Your task to perform on an android device: What's on my calendar today? Image 0: 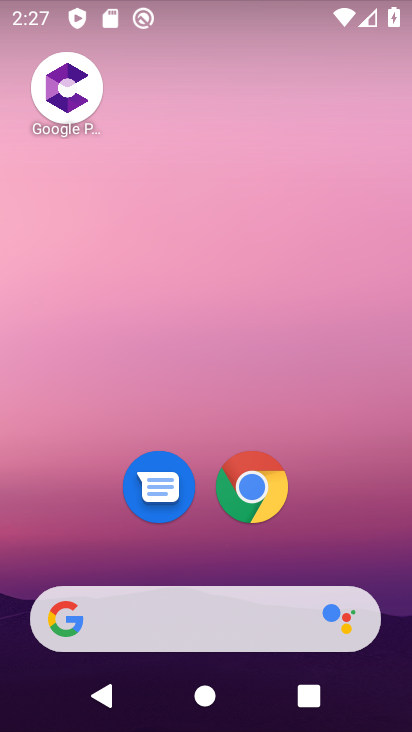
Step 0: drag from (240, 594) to (213, 159)
Your task to perform on an android device: What's on my calendar today? Image 1: 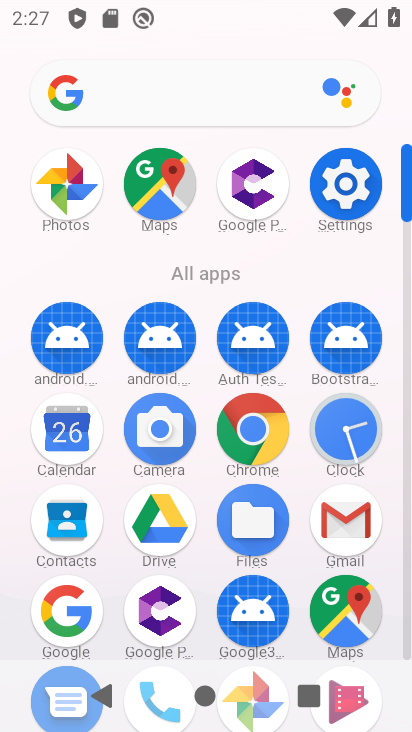
Step 1: drag from (269, 473) to (279, 157)
Your task to perform on an android device: What's on my calendar today? Image 2: 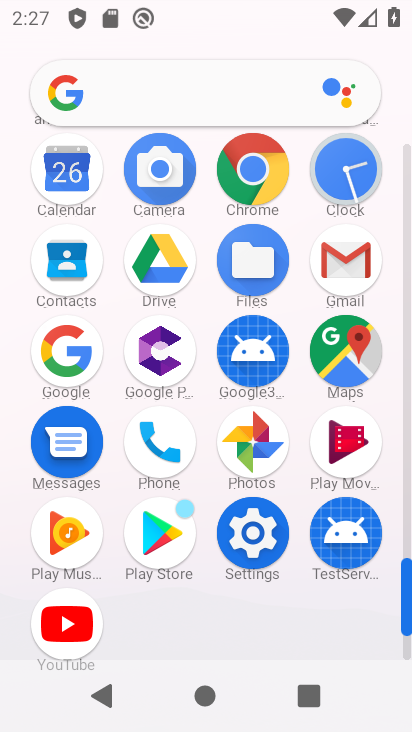
Step 2: click (250, 225)
Your task to perform on an android device: What's on my calendar today? Image 3: 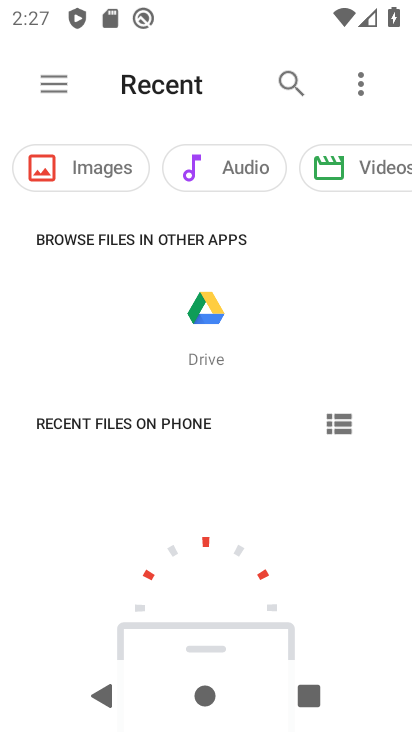
Step 3: press home button
Your task to perform on an android device: What's on my calendar today? Image 4: 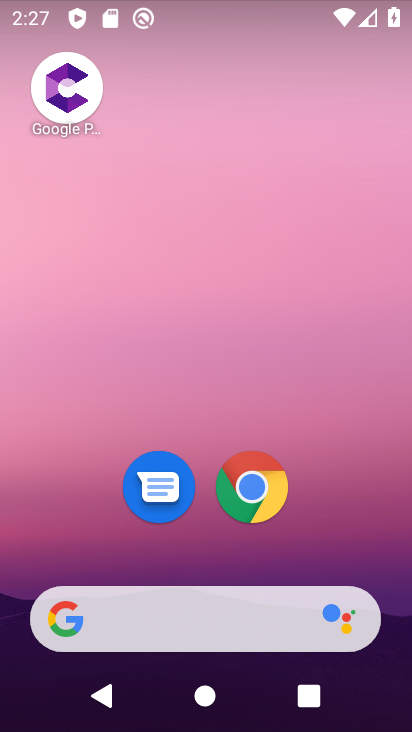
Step 4: drag from (184, 561) to (182, 90)
Your task to perform on an android device: What's on my calendar today? Image 5: 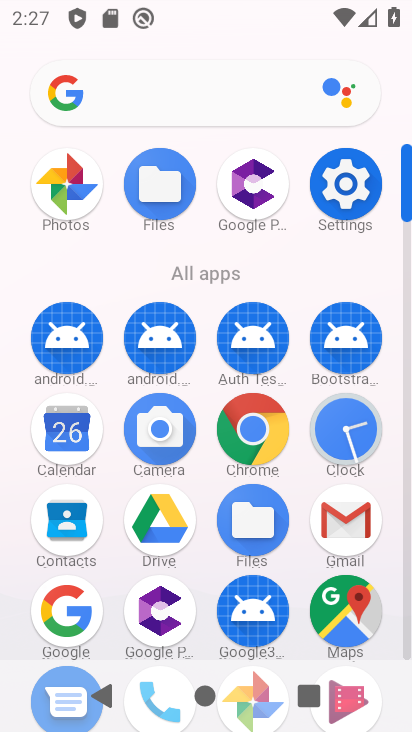
Step 5: click (89, 441)
Your task to perform on an android device: What's on my calendar today? Image 6: 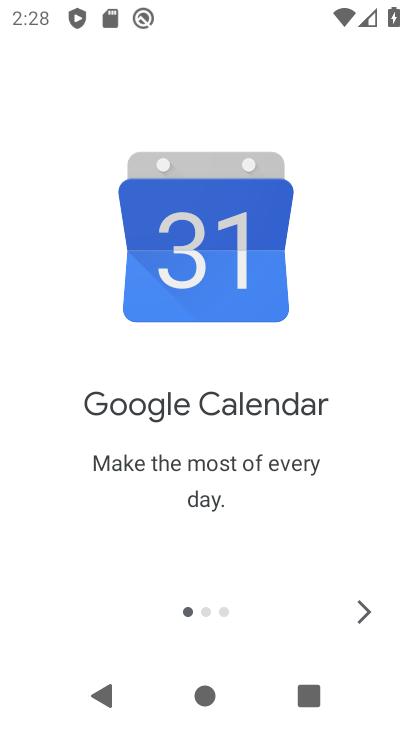
Step 6: click (374, 618)
Your task to perform on an android device: What's on my calendar today? Image 7: 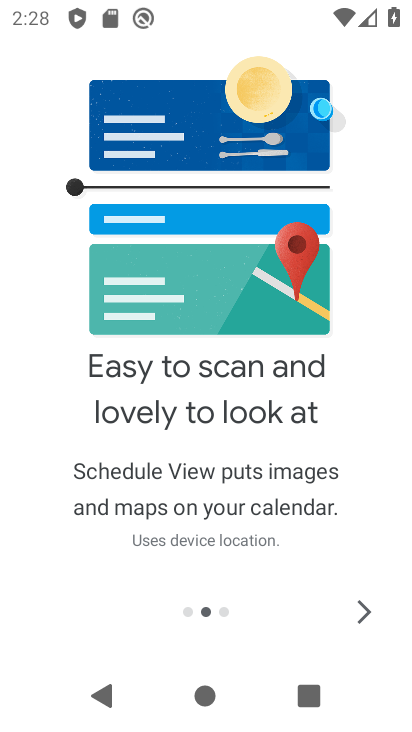
Step 7: click (370, 617)
Your task to perform on an android device: What's on my calendar today? Image 8: 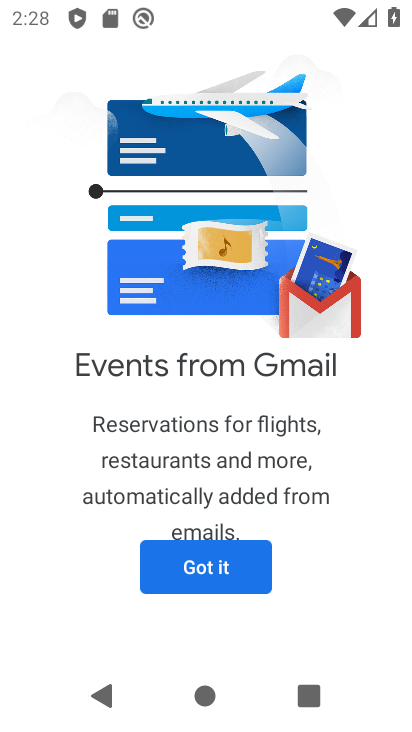
Step 8: click (229, 572)
Your task to perform on an android device: What's on my calendar today? Image 9: 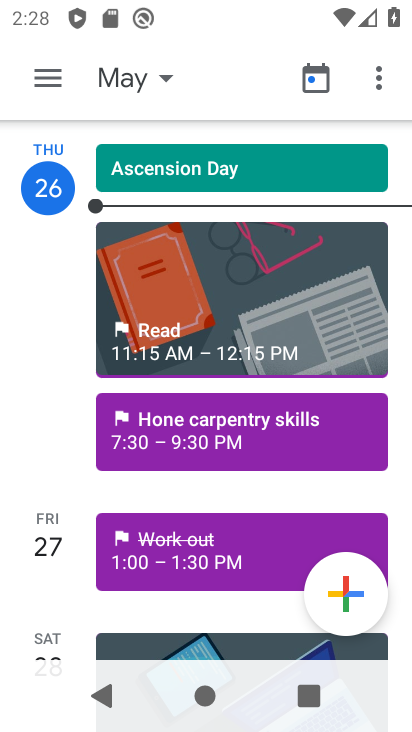
Step 9: task complete